Your task to perform on an android device: What is the news today? Image 0: 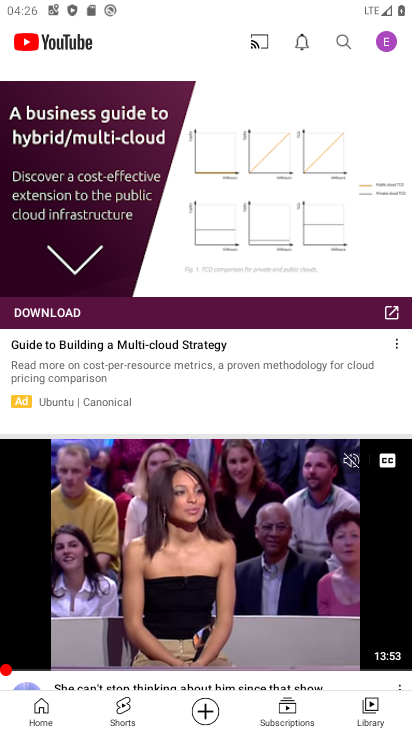
Step 0: press home button
Your task to perform on an android device: What is the news today? Image 1: 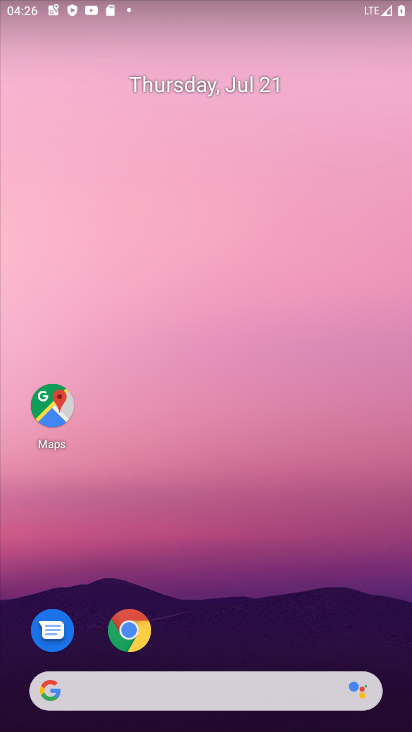
Step 1: click (256, 681)
Your task to perform on an android device: What is the news today? Image 2: 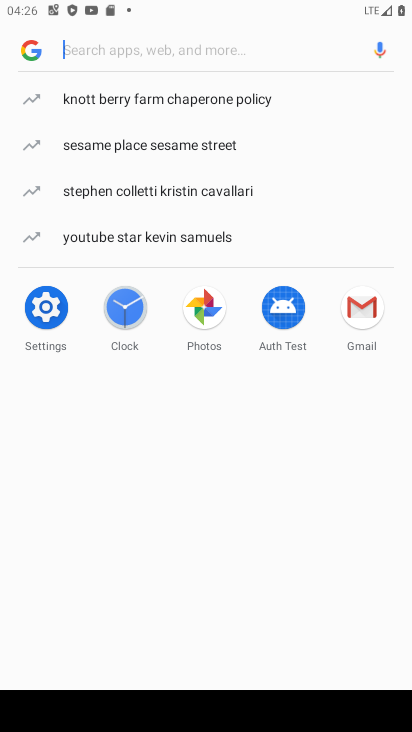
Step 2: click (44, 62)
Your task to perform on an android device: What is the news today? Image 3: 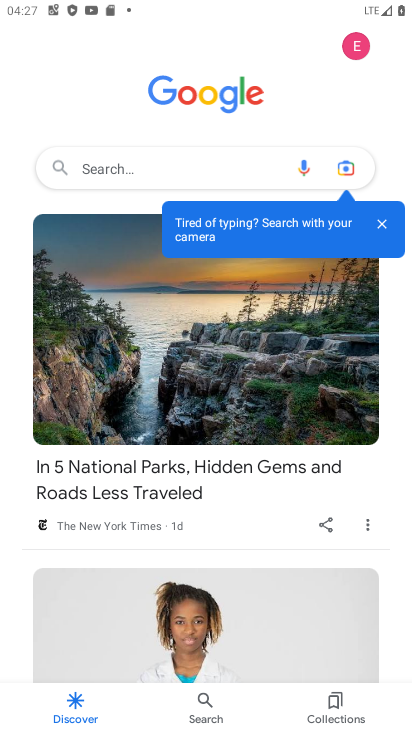
Step 3: task complete